Your task to perform on an android device: check battery use Image 0: 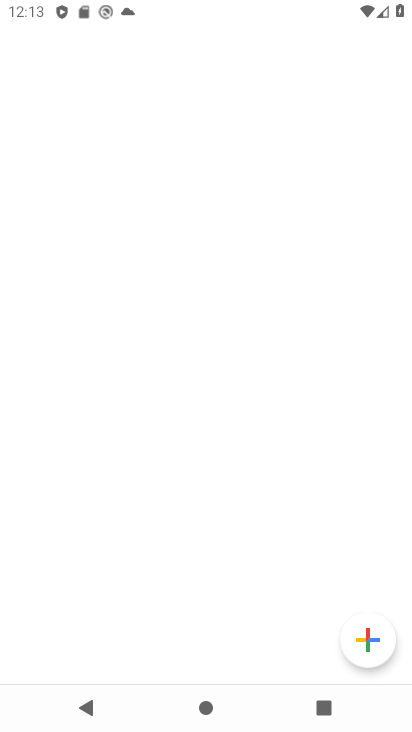
Step 0: drag from (235, 497) to (251, 396)
Your task to perform on an android device: check battery use Image 1: 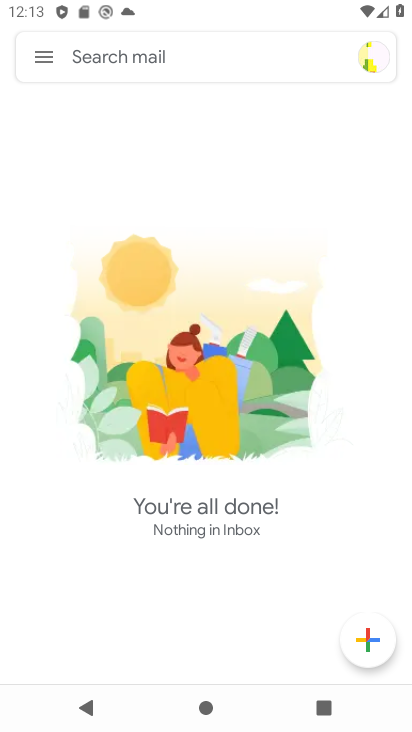
Step 1: press home button
Your task to perform on an android device: check battery use Image 2: 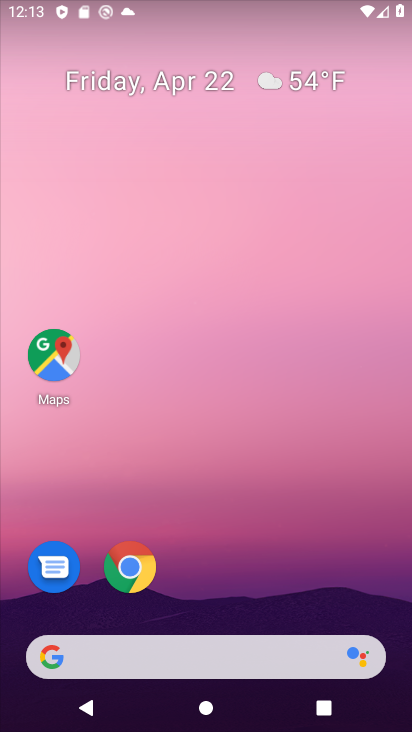
Step 2: drag from (277, 508) to (352, 144)
Your task to perform on an android device: check battery use Image 3: 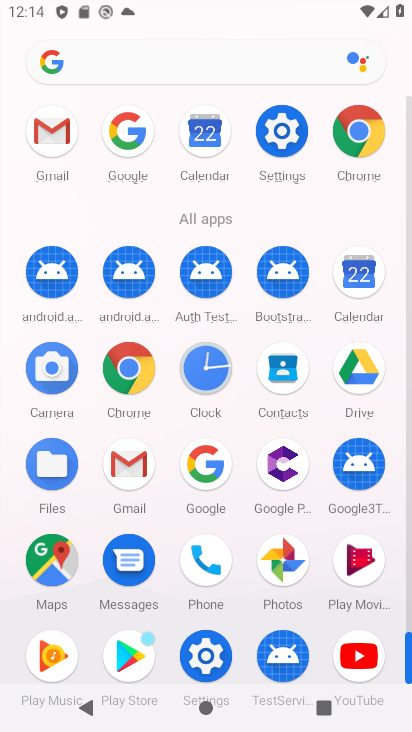
Step 3: click (301, 145)
Your task to perform on an android device: check battery use Image 4: 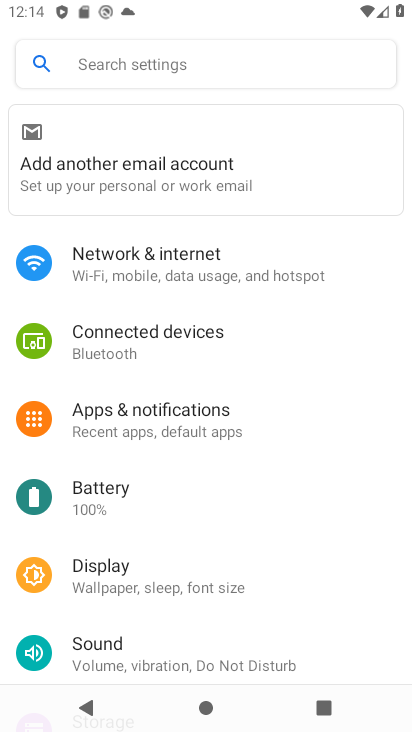
Step 4: click (123, 511)
Your task to perform on an android device: check battery use Image 5: 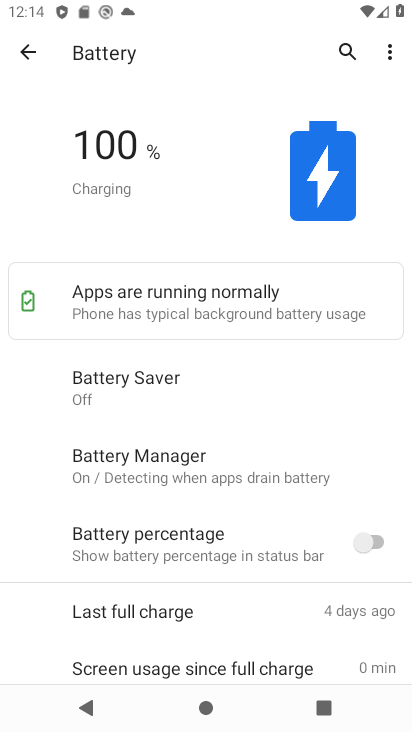
Step 5: task complete